Your task to perform on an android device: change the clock display to show seconds Image 0: 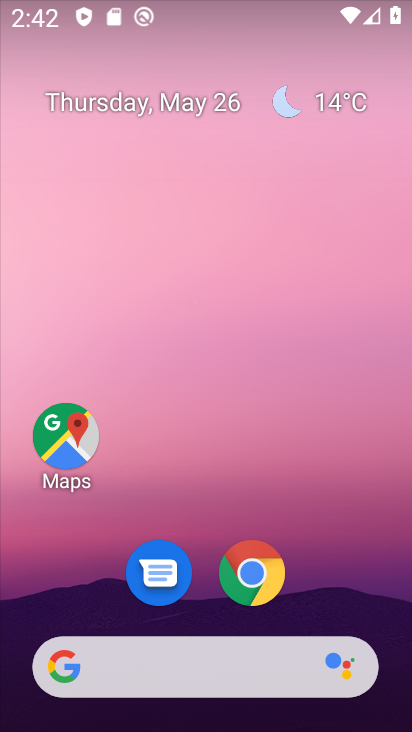
Step 0: drag from (337, 567) to (186, 11)
Your task to perform on an android device: change the clock display to show seconds Image 1: 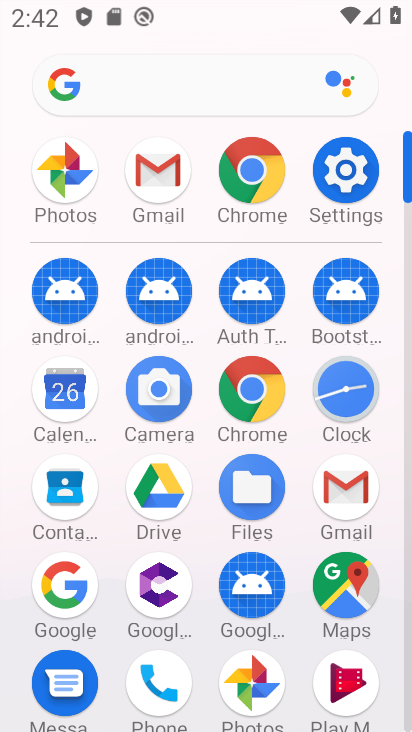
Step 1: drag from (6, 534) to (4, 210)
Your task to perform on an android device: change the clock display to show seconds Image 2: 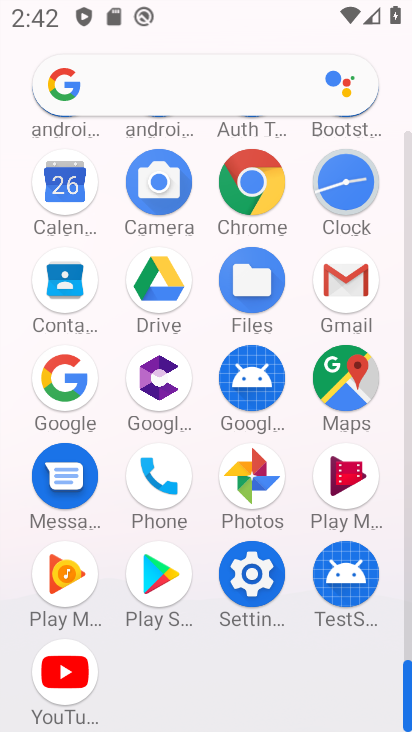
Step 2: click (346, 179)
Your task to perform on an android device: change the clock display to show seconds Image 3: 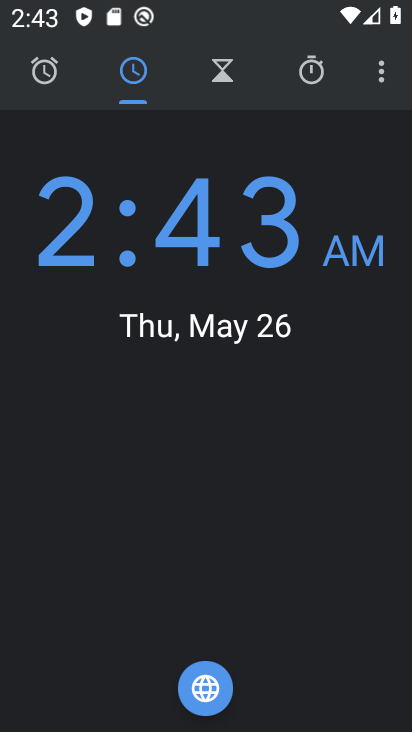
Step 3: drag from (377, 71) to (294, 141)
Your task to perform on an android device: change the clock display to show seconds Image 4: 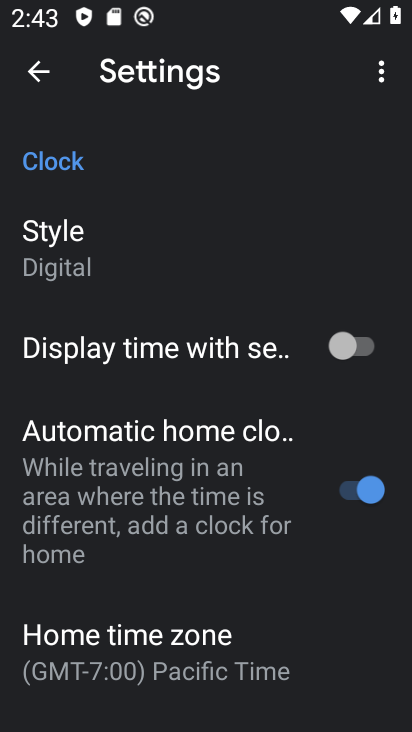
Step 4: click (364, 338)
Your task to perform on an android device: change the clock display to show seconds Image 5: 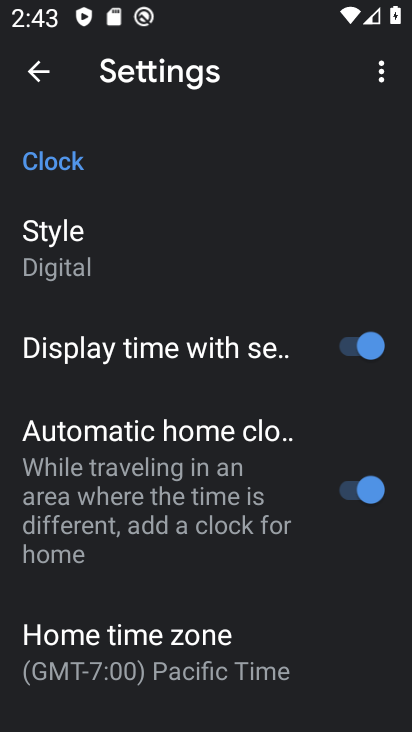
Step 5: task complete